Your task to perform on an android device: Open Google Image 0: 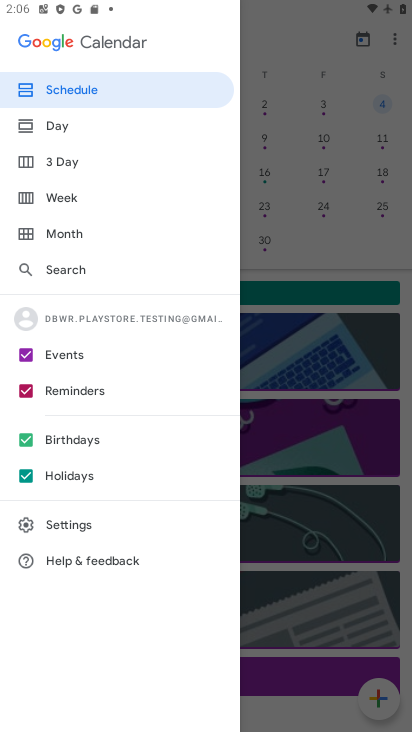
Step 0: press home button
Your task to perform on an android device: Open Google Image 1: 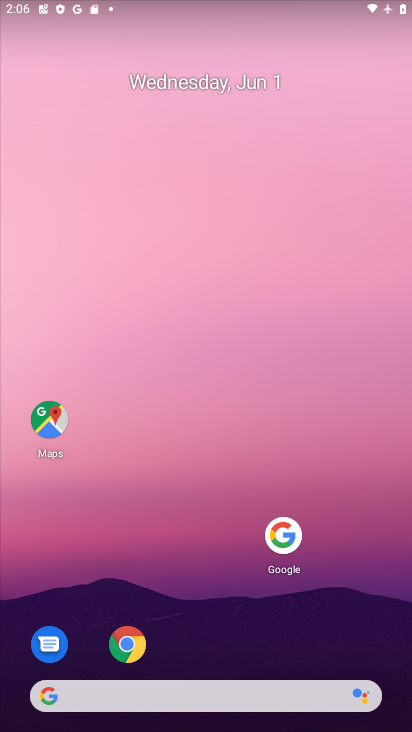
Step 1: drag from (218, 700) to (341, 137)
Your task to perform on an android device: Open Google Image 2: 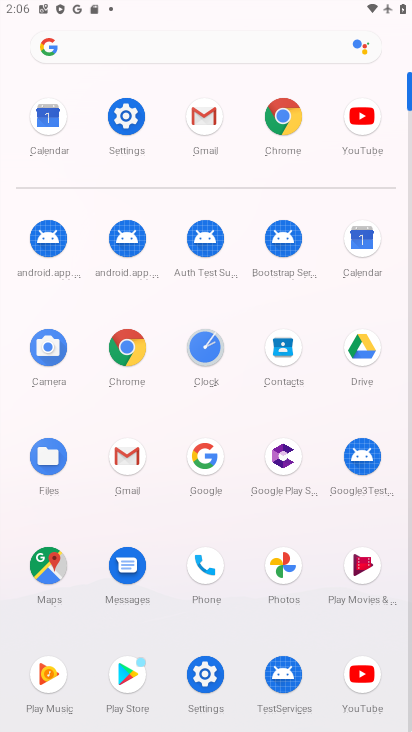
Step 2: click (211, 457)
Your task to perform on an android device: Open Google Image 3: 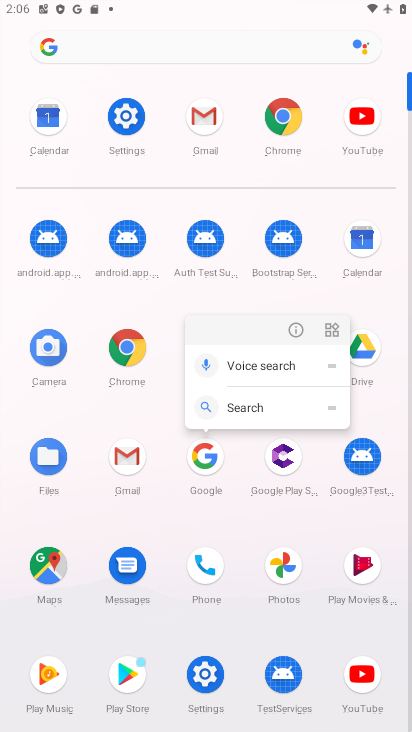
Step 3: click (211, 456)
Your task to perform on an android device: Open Google Image 4: 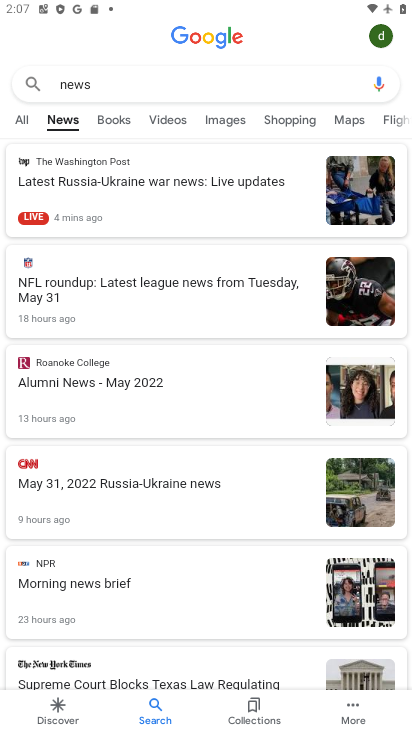
Step 4: task complete